Your task to perform on an android device: uninstall "Google Duo" Image 0: 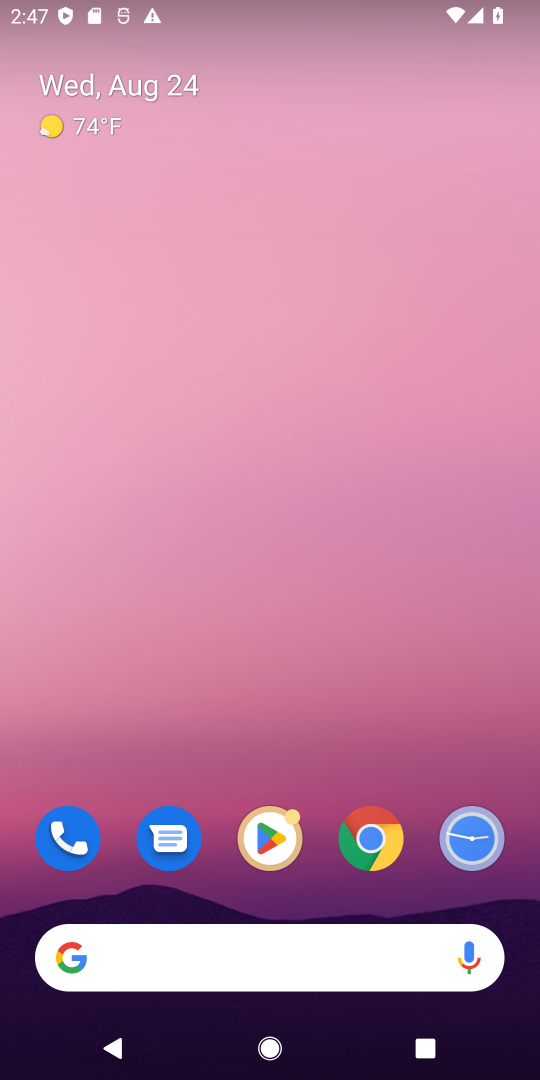
Step 0: click (271, 864)
Your task to perform on an android device: uninstall "Google Duo" Image 1: 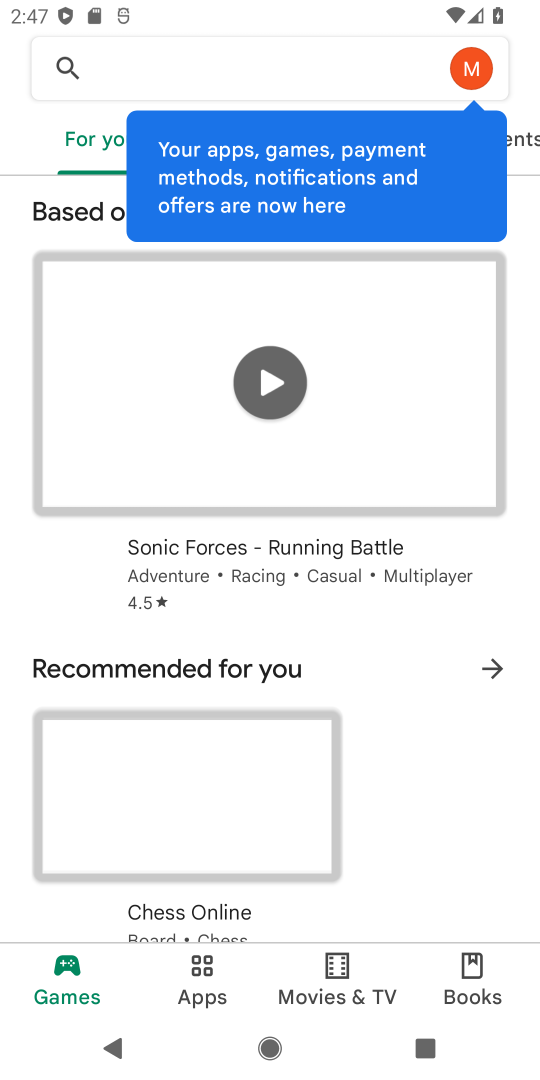
Step 1: click (209, 71)
Your task to perform on an android device: uninstall "Google Duo" Image 2: 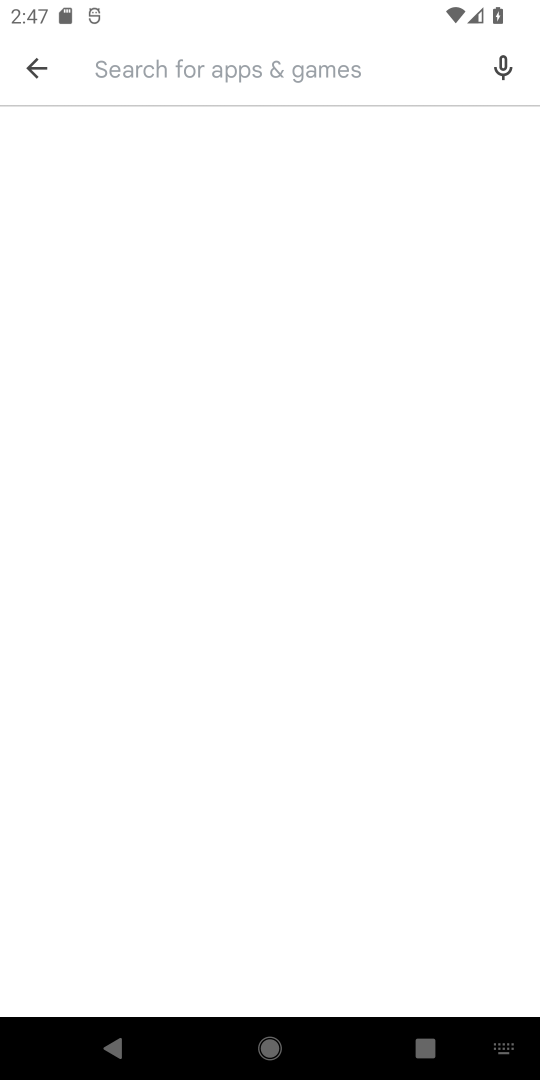
Step 2: type "Google Duo"
Your task to perform on an android device: uninstall "Google Duo" Image 3: 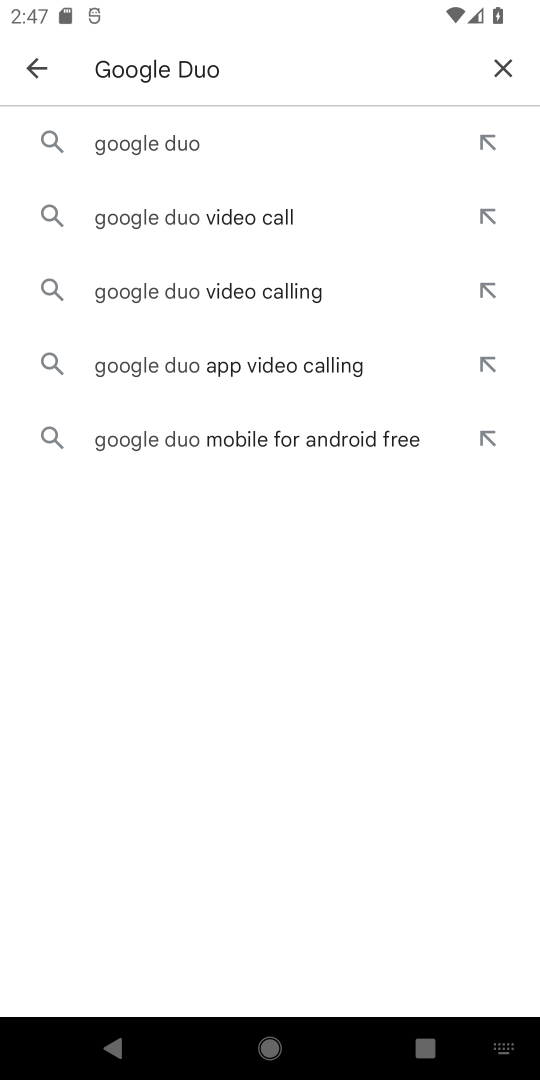
Step 3: click (141, 157)
Your task to perform on an android device: uninstall "Google Duo" Image 4: 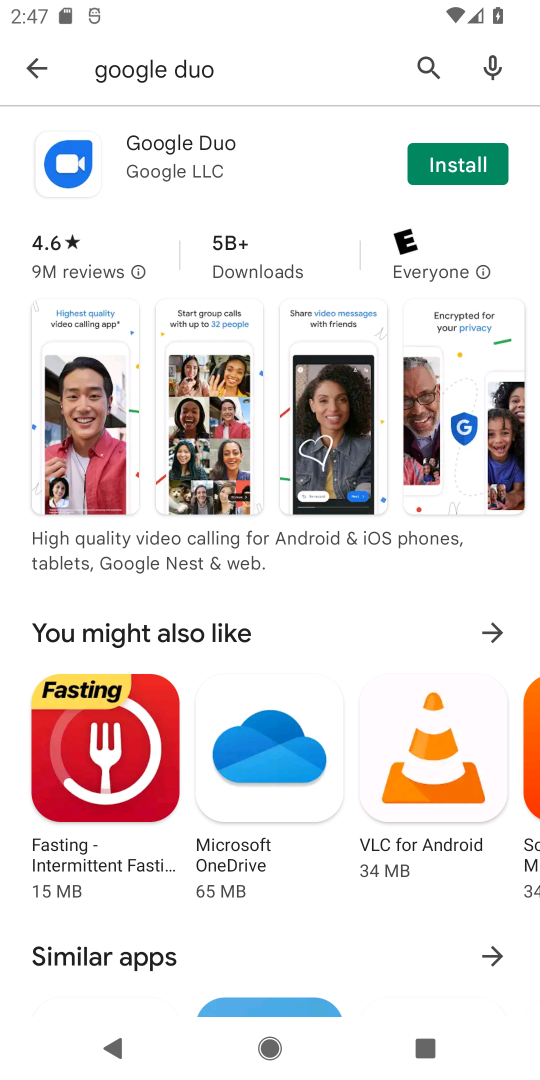
Step 4: task complete